Your task to perform on an android device: Open the web browser Image 0: 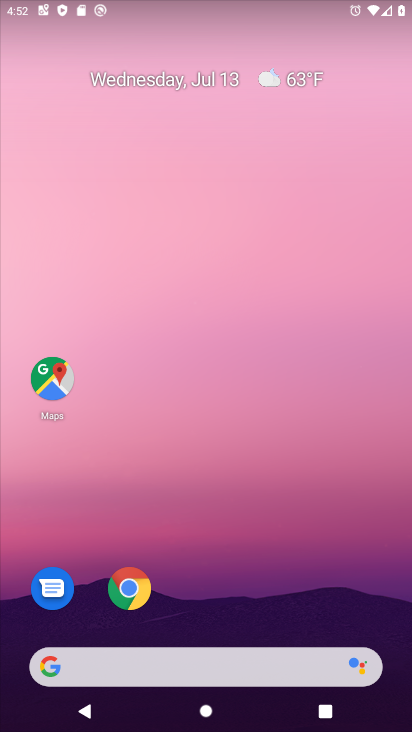
Step 0: click (132, 591)
Your task to perform on an android device: Open the web browser Image 1: 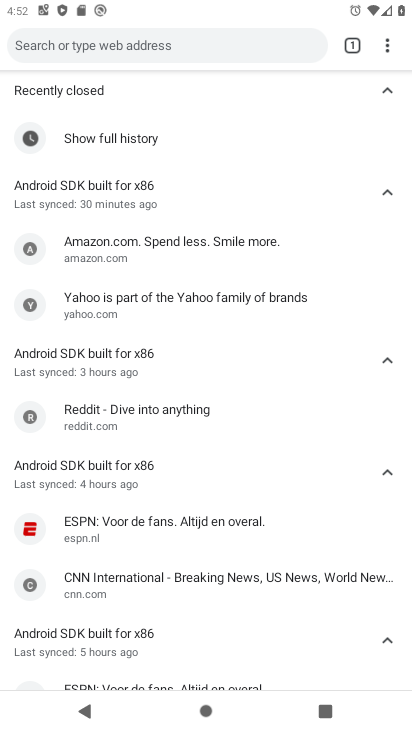
Step 1: task complete